Your task to perform on an android device: Open Google Image 0: 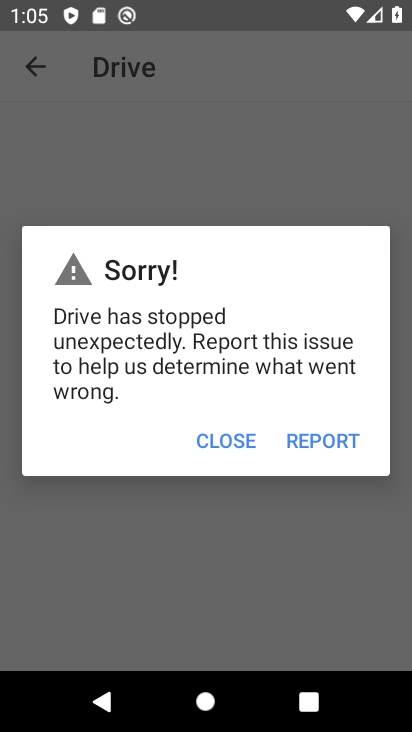
Step 0: press home button
Your task to perform on an android device: Open Google Image 1: 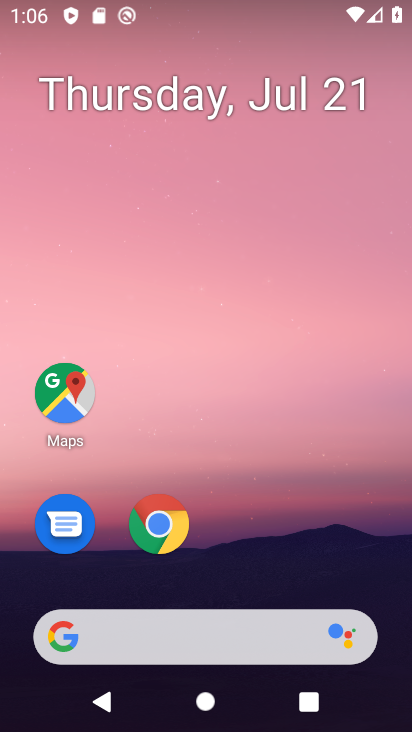
Step 1: click (182, 639)
Your task to perform on an android device: Open Google Image 2: 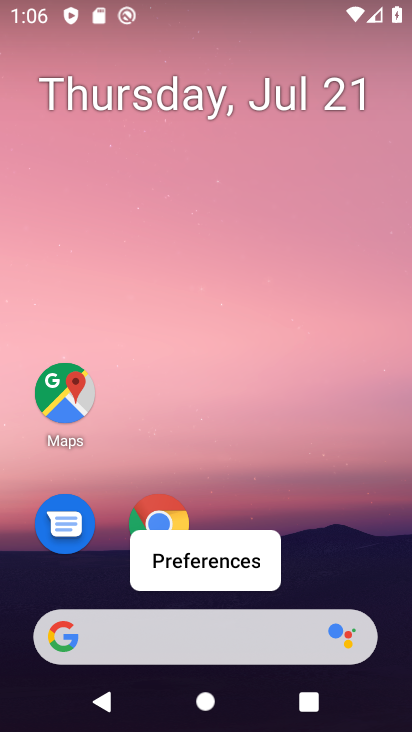
Step 2: click (209, 643)
Your task to perform on an android device: Open Google Image 3: 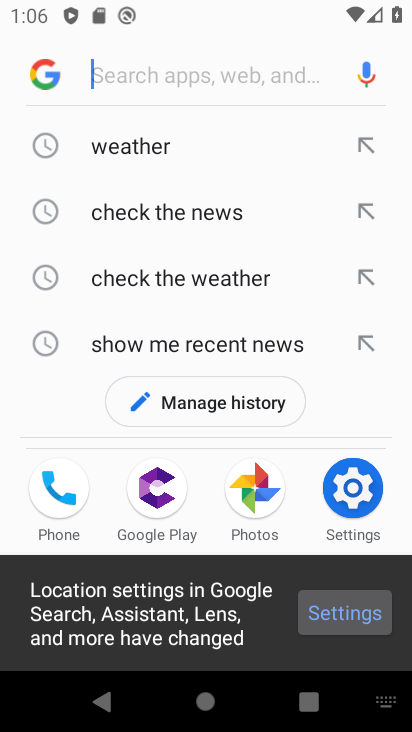
Step 3: click (42, 73)
Your task to perform on an android device: Open Google Image 4: 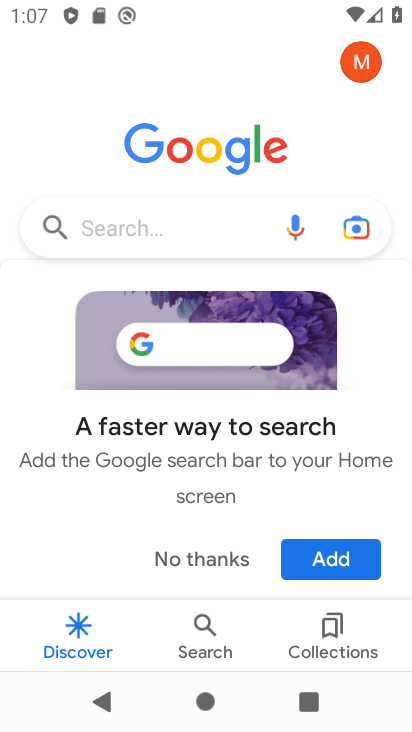
Step 4: task complete